Your task to perform on an android device: install app "Facebook" Image 0: 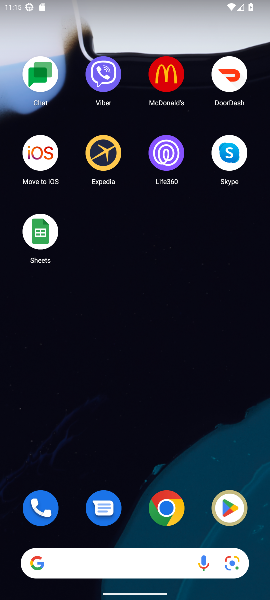
Step 0: drag from (159, 570) to (203, 40)
Your task to perform on an android device: install app "Facebook" Image 1: 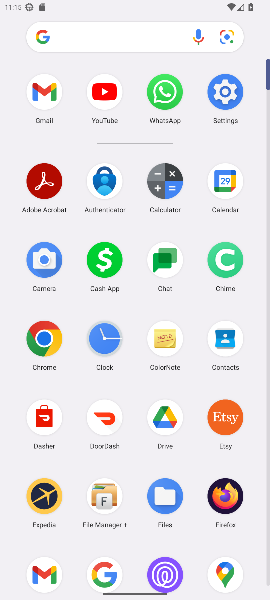
Step 1: drag from (132, 463) to (161, 210)
Your task to perform on an android device: install app "Facebook" Image 2: 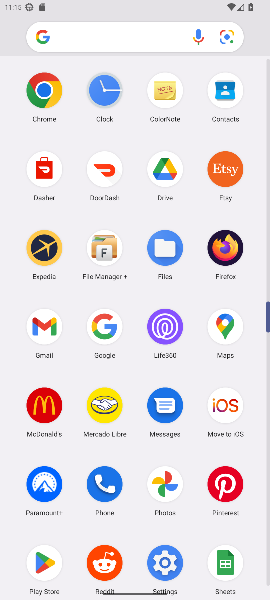
Step 2: click (30, 561)
Your task to perform on an android device: install app "Facebook" Image 3: 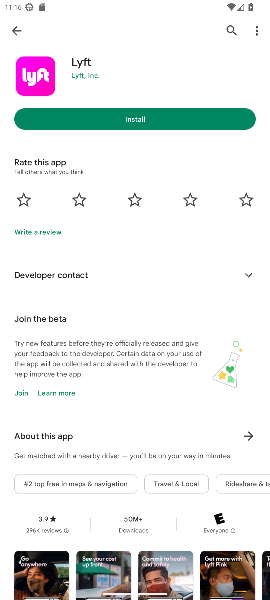
Step 3: click (233, 30)
Your task to perform on an android device: install app "Facebook" Image 4: 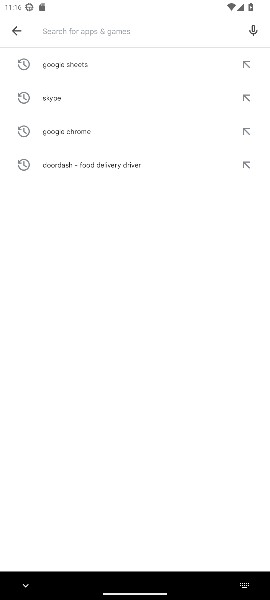
Step 4: type "facebook"
Your task to perform on an android device: install app "Facebook" Image 5: 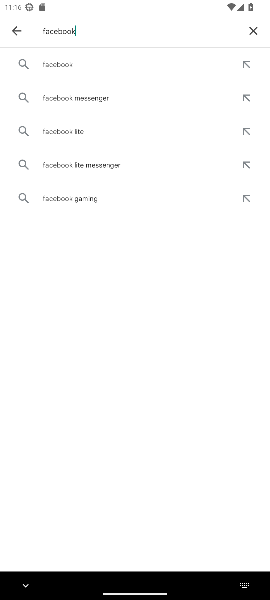
Step 5: click (73, 63)
Your task to perform on an android device: install app "Facebook" Image 6: 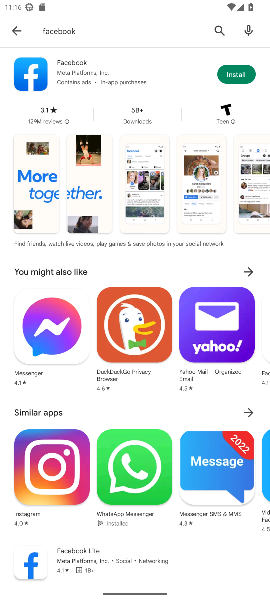
Step 6: click (237, 68)
Your task to perform on an android device: install app "Facebook" Image 7: 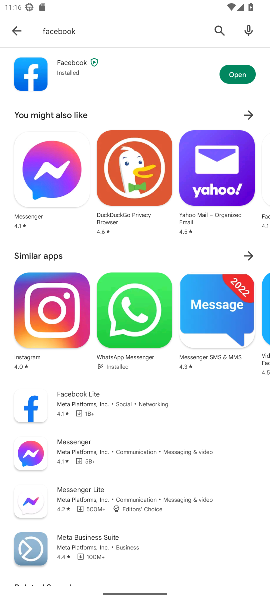
Step 7: task complete